Your task to perform on an android device: change the clock display to digital Image 0: 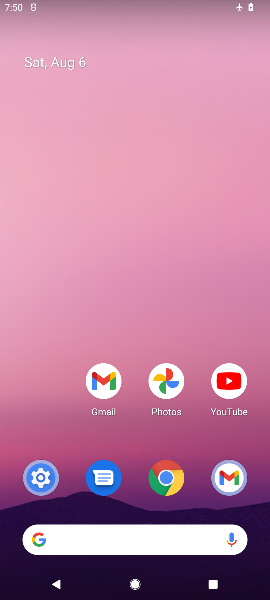
Step 0: press home button
Your task to perform on an android device: change the clock display to digital Image 1: 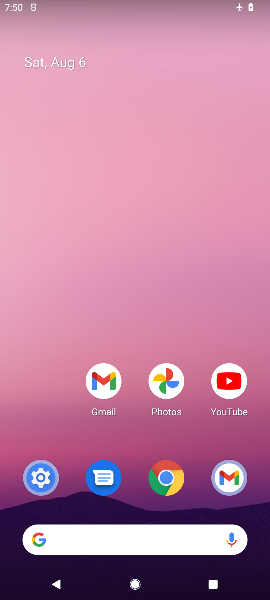
Step 1: drag from (67, 411) to (49, 66)
Your task to perform on an android device: change the clock display to digital Image 2: 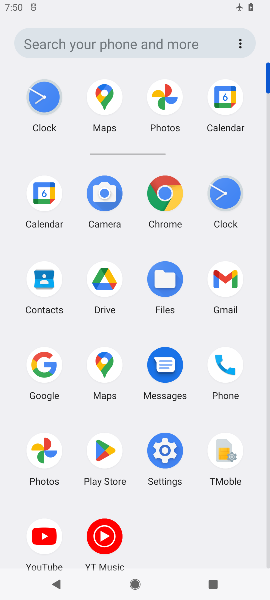
Step 2: click (217, 198)
Your task to perform on an android device: change the clock display to digital Image 3: 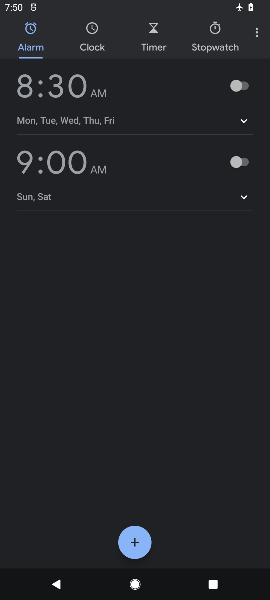
Step 3: click (256, 34)
Your task to perform on an android device: change the clock display to digital Image 4: 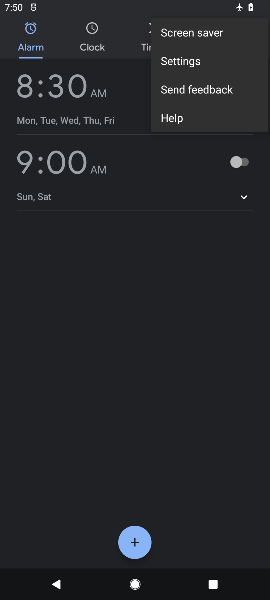
Step 4: click (180, 64)
Your task to perform on an android device: change the clock display to digital Image 5: 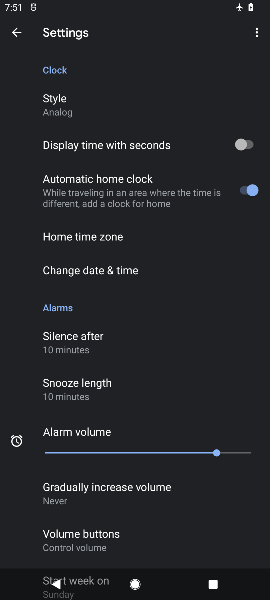
Step 5: click (44, 107)
Your task to perform on an android device: change the clock display to digital Image 6: 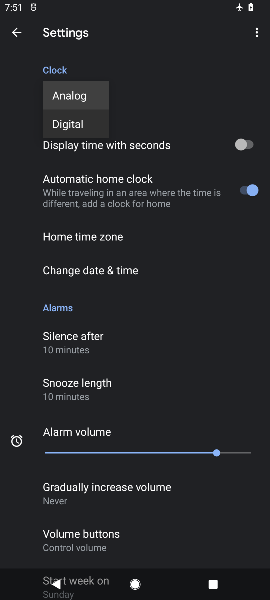
Step 6: click (53, 127)
Your task to perform on an android device: change the clock display to digital Image 7: 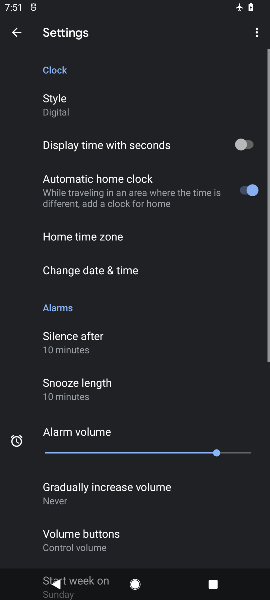
Step 7: task complete